Your task to perform on an android device: turn off sleep mode Image 0: 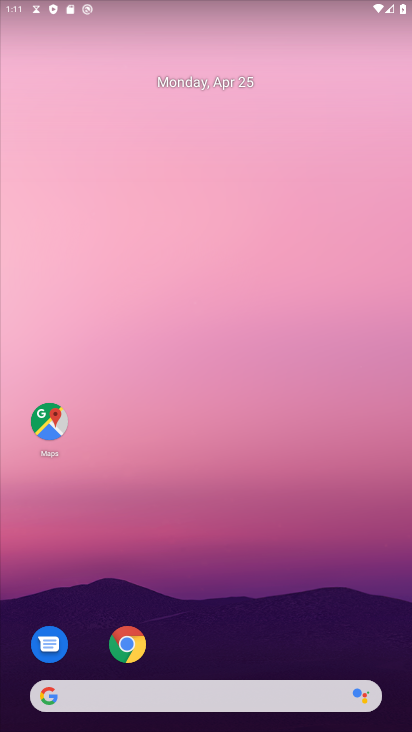
Step 0: drag from (348, 648) to (353, 11)
Your task to perform on an android device: turn off sleep mode Image 1: 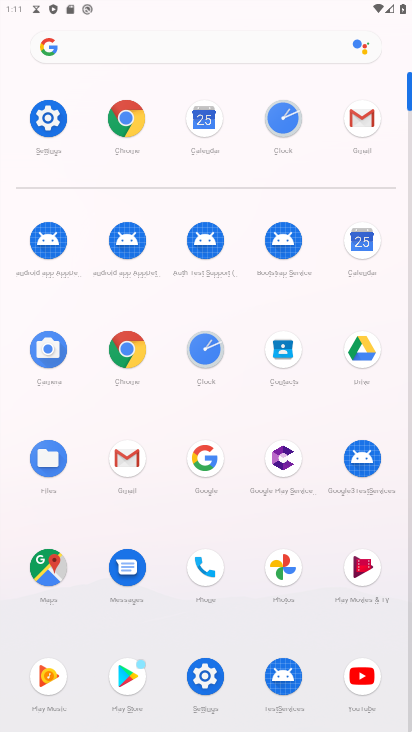
Step 1: click (50, 120)
Your task to perform on an android device: turn off sleep mode Image 2: 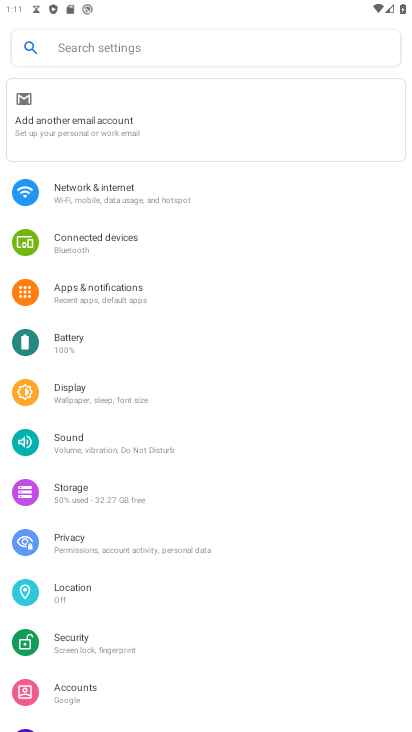
Step 2: click (72, 400)
Your task to perform on an android device: turn off sleep mode Image 3: 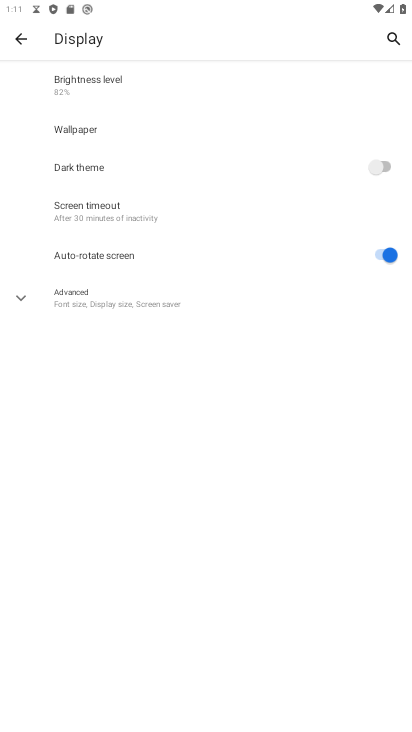
Step 3: click (24, 303)
Your task to perform on an android device: turn off sleep mode Image 4: 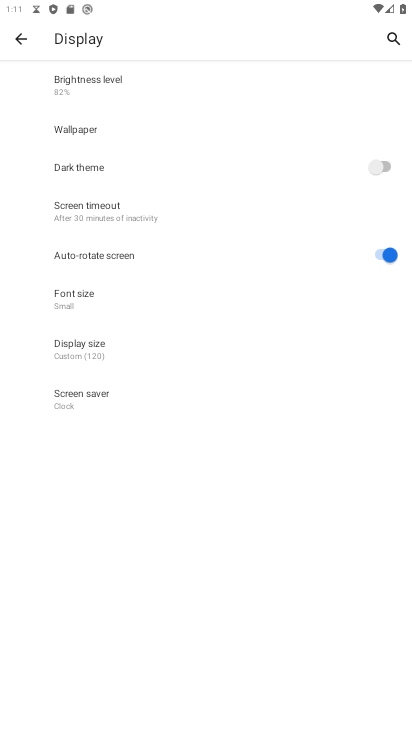
Step 4: task complete